Your task to perform on an android device: turn on improve location accuracy Image 0: 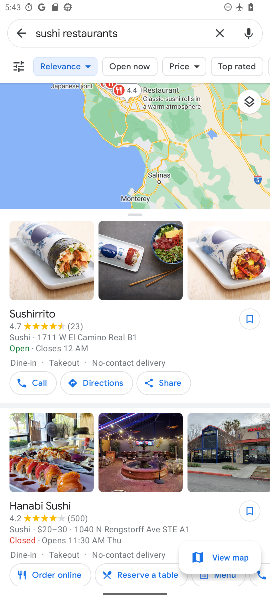
Step 0: drag from (159, 522) to (112, 300)
Your task to perform on an android device: turn on improve location accuracy Image 1: 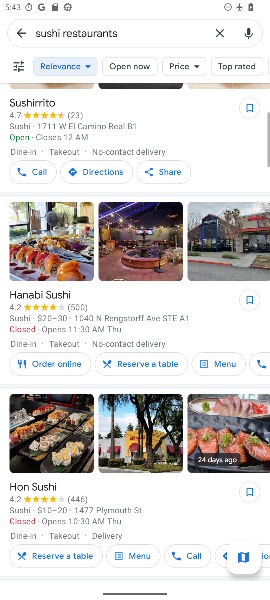
Step 1: drag from (99, 186) to (125, 594)
Your task to perform on an android device: turn on improve location accuracy Image 2: 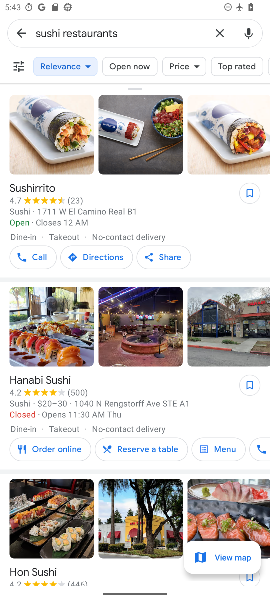
Step 2: press home button
Your task to perform on an android device: turn on improve location accuracy Image 3: 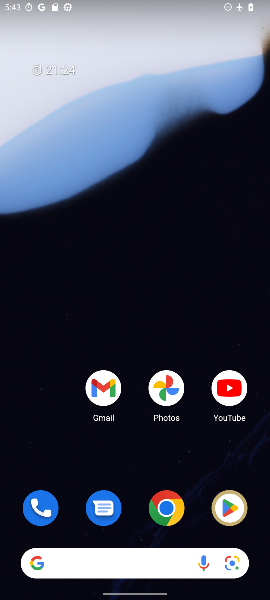
Step 3: drag from (132, 467) to (105, 53)
Your task to perform on an android device: turn on improve location accuracy Image 4: 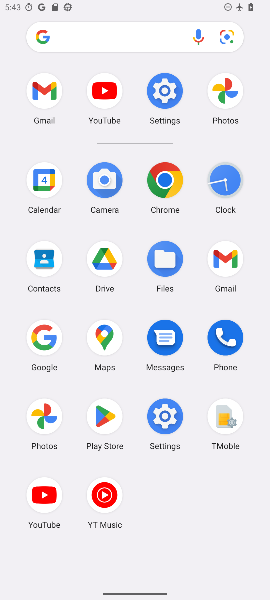
Step 4: click (157, 92)
Your task to perform on an android device: turn on improve location accuracy Image 5: 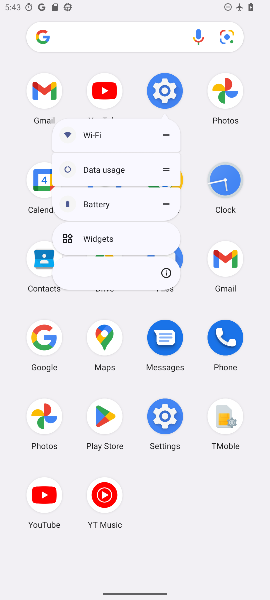
Step 5: click (150, 269)
Your task to perform on an android device: turn on improve location accuracy Image 6: 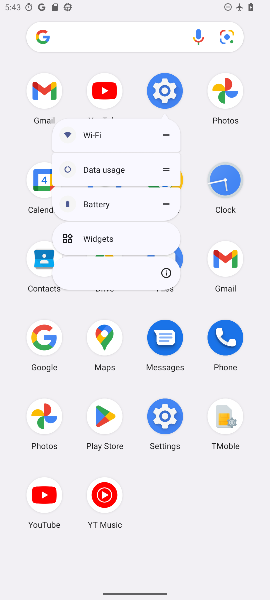
Step 6: click (173, 267)
Your task to perform on an android device: turn on improve location accuracy Image 7: 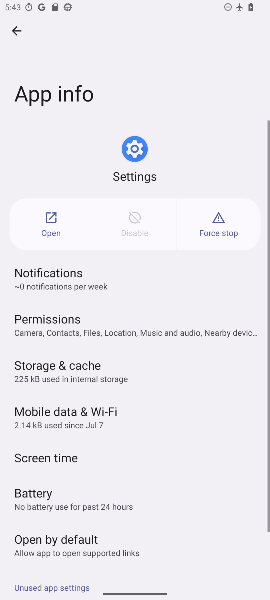
Step 7: click (50, 213)
Your task to perform on an android device: turn on improve location accuracy Image 8: 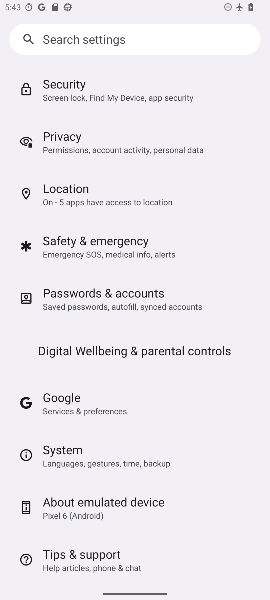
Step 8: click (103, 179)
Your task to perform on an android device: turn on improve location accuracy Image 9: 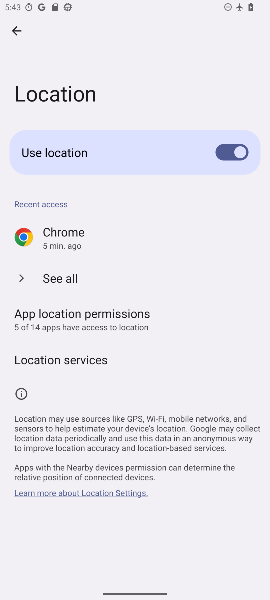
Step 9: drag from (151, 381) to (134, 216)
Your task to perform on an android device: turn on improve location accuracy Image 10: 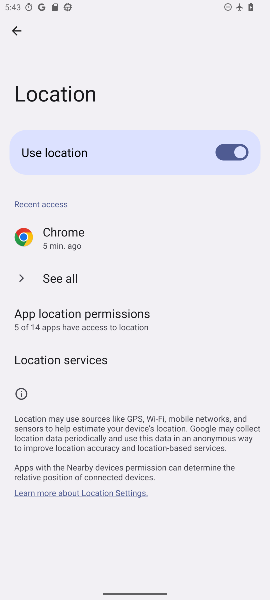
Step 10: click (71, 362)
Your task to perform on an android device: turn on improve location accuracy Image 11: 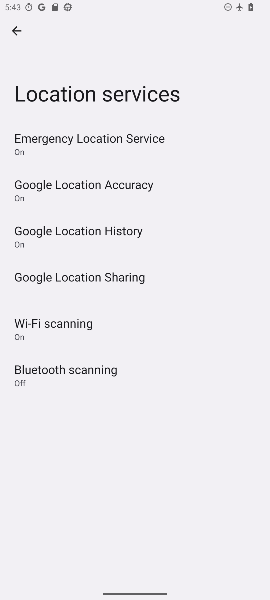
Step 11: click (130, 187)
Your task to perform on an android device: turn on improve location accuracy Image 12: 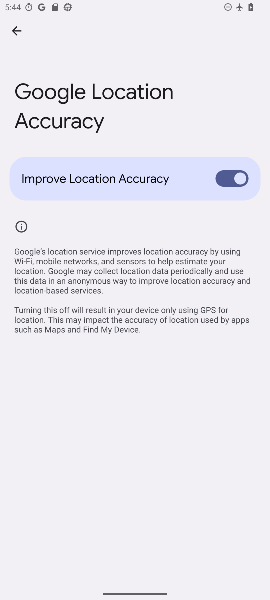
Step 12: task complete